Your task to perform on an android device: Open the web browser Image 0: 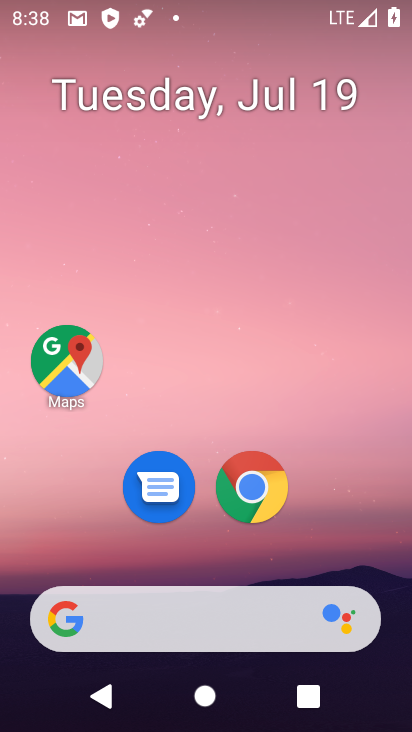
Step 0: click (252, 479)
Your task to perform on an android device: Open the web browser Image 1: 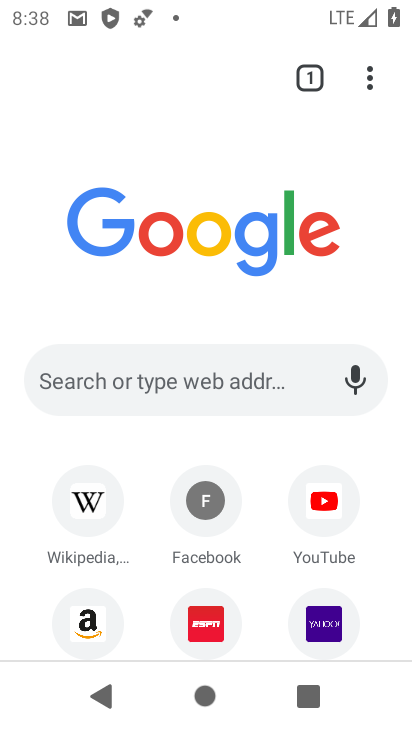
Step 1: task complete